Your task to perform on an android device: Go to ESPN.com Image 0: 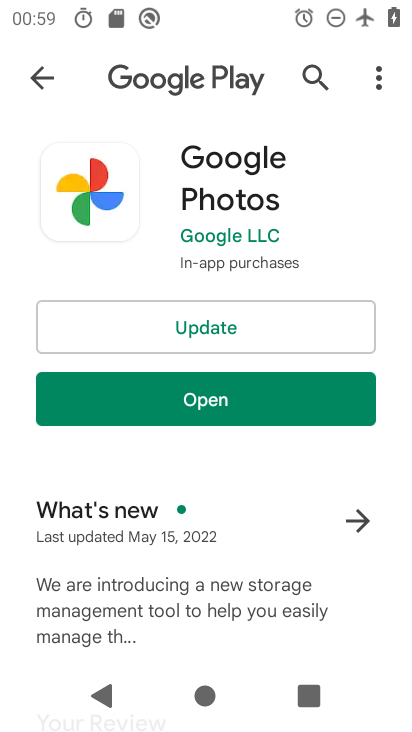
Step 0: press home button
Your task to perform on an android device: Go to ESPN.com Image 1: 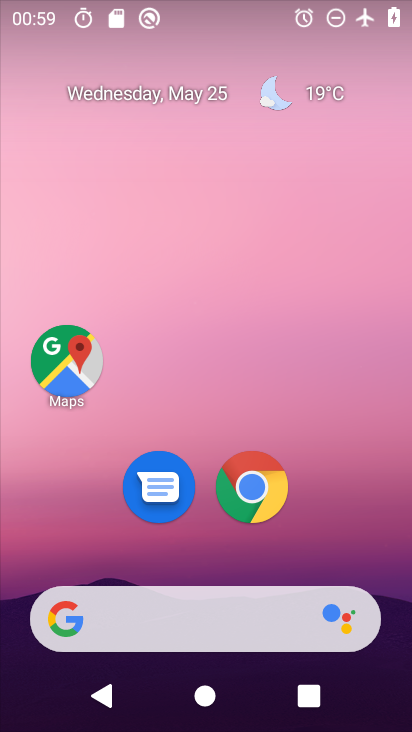
Step 1: click (249, 486)
Your task to perform on an android device: Go to ESPN.com Image 2: 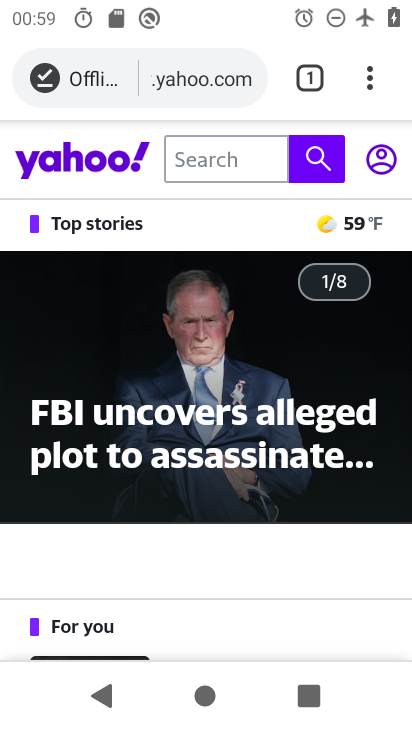
Step 2: click (160, 81)
Your task to perform on an android device: Go to ESPN.com Image 3: 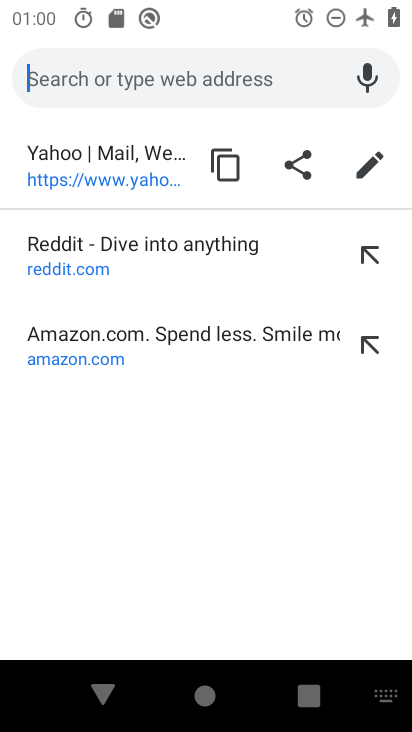
Step 3: type "espn.com"
Your task to perform on an android device: Go to ESPN.com Image 4: 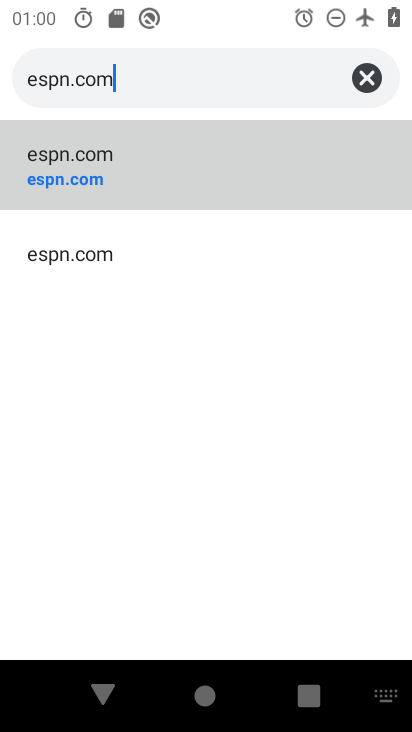
Step 4: click (69, 180)
Your task to perform on an android device: Go to ESPN.com Image 5: 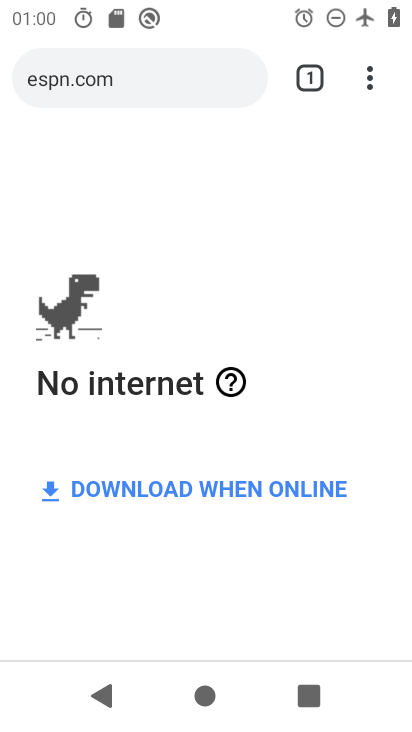
Step 5: task complete